Your task to perform on an android device: turn on sleep mode Image 0: 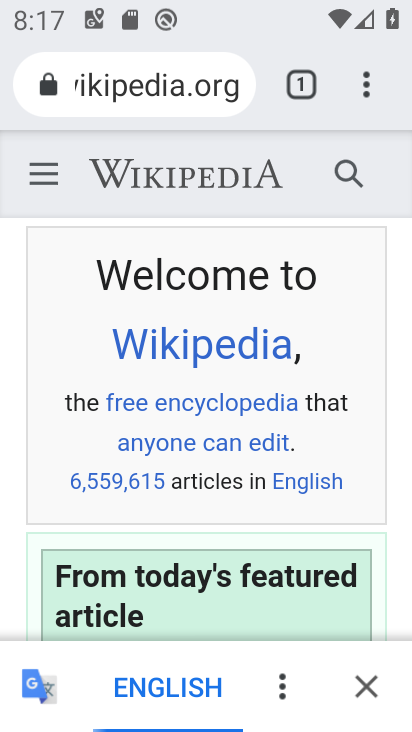
Step 0: press home button
Your task to perform on an android device: turn on sleep mode Image 1: 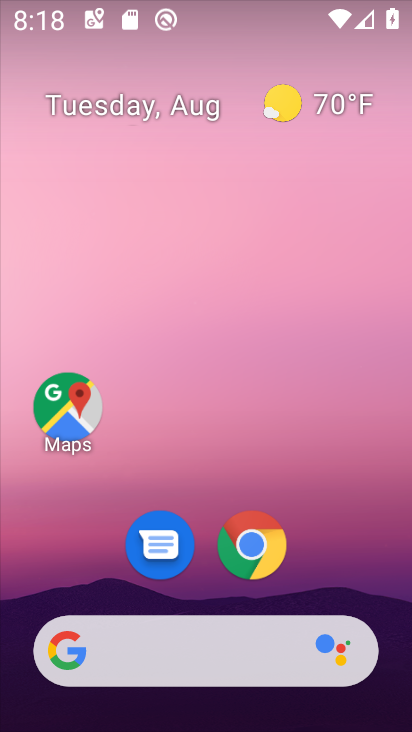
Step 1: drag from (266, 582) to (279, 9)
Your task to perform on an android device: turn on sleep mode Image 2: 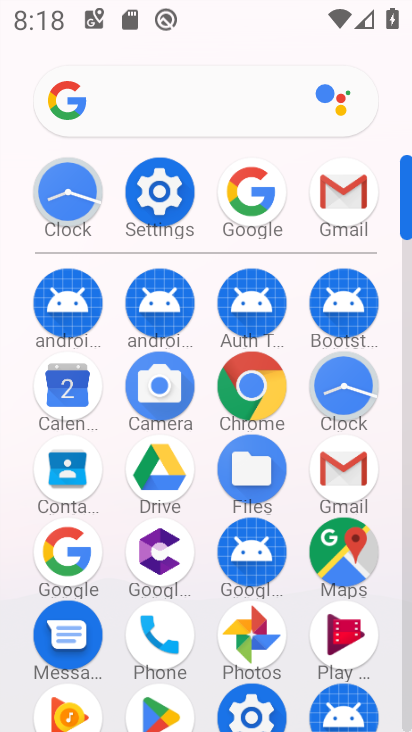
Step 2: click (180, 203)
Your task to perform on an android device: turn on sleep mode Image 3: 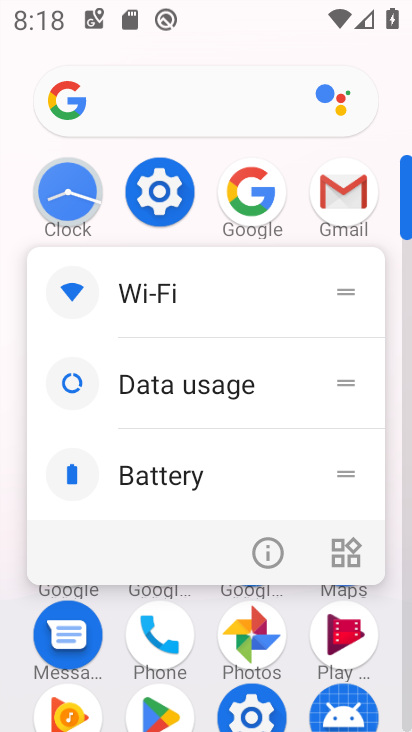
Step 3: click (153, 179)
Your task to perform on an android device: turn on sleep mode Image 4: 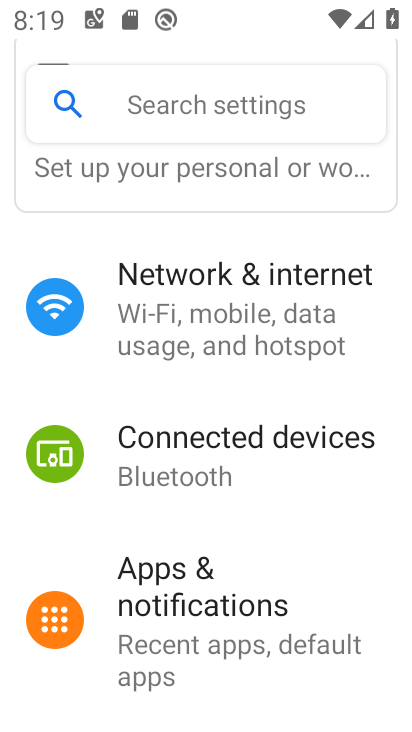
Step 4: drag from (179, 590) to (225, 183)
Your task to perform on an android device: turn on sleep mode Image 5: 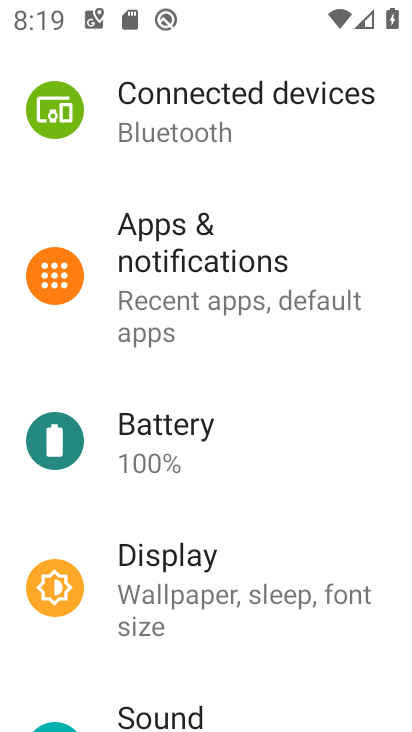
Step 5: drag from (173, 584) to (229, 238)
Your task to perform on an android device: turn on sleep mode Image 6: 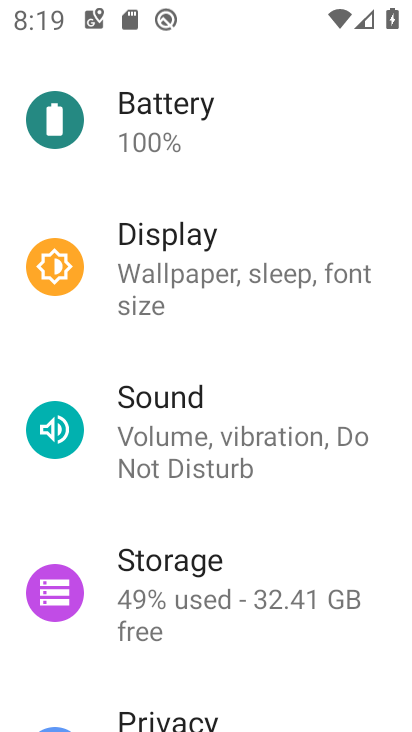
Step 6: drag from (219, 578) to (229, 264)
Your task to perform on an android device: turn on sleep mode Image 7: 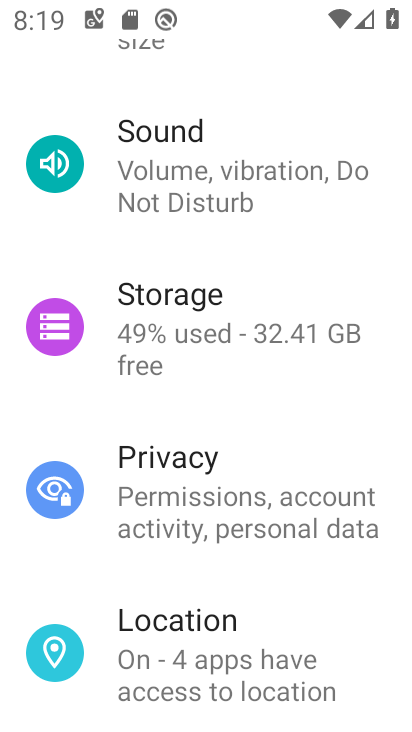
Step 7: drag from (228, 275) to (189, 683)
Your task to perform on an android device: turn on sleep mode Image 8: 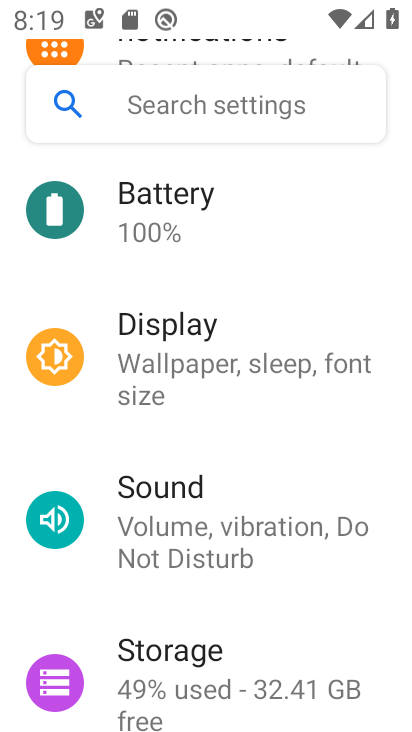
Step 8: drag from (191, 306) to (194, 633)
Your task to perform on an android device: turn on sleep mode Image 9: 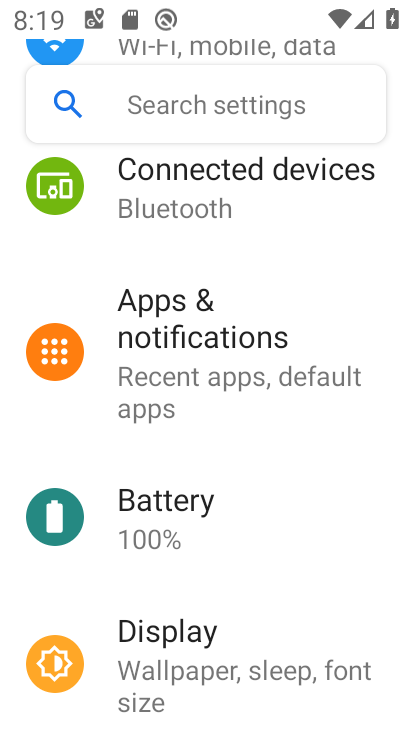
Step 9: drag from (205, 296) to (190, 651)
Your task to perform on an android device: turn on sleep mode Image 10: 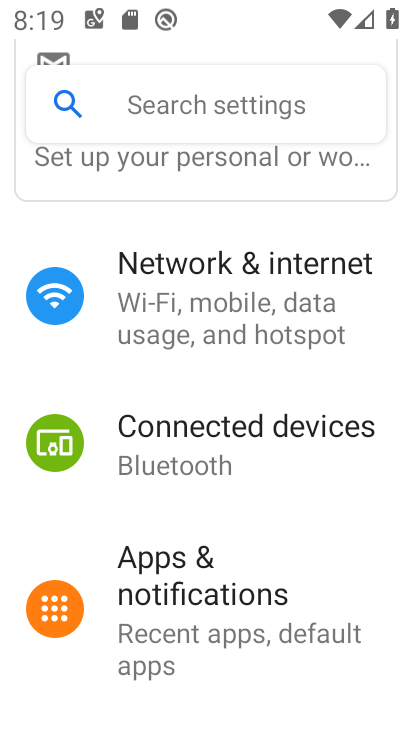
Step 10: drag from (189, 503) to (209, 283)
Your task to perform on an android device: turn on sleep mode Image 11: 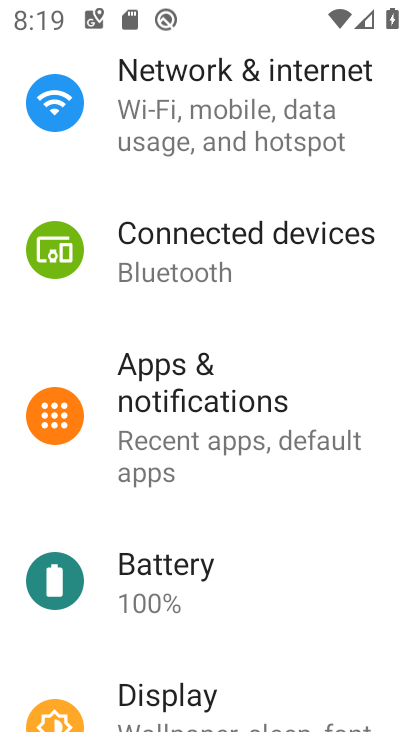
Step 11: drag from (184, 549) to (191, 287)
Your task to perform on an android device: turn on sleep mode Image 12: 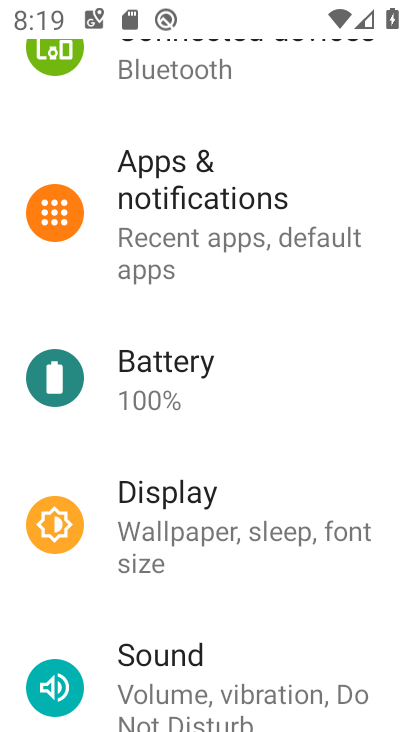
Step 12: drag from (190, 497) to (219, 181)
Your task to perform on an android device: turn on sleep mode Image 13: 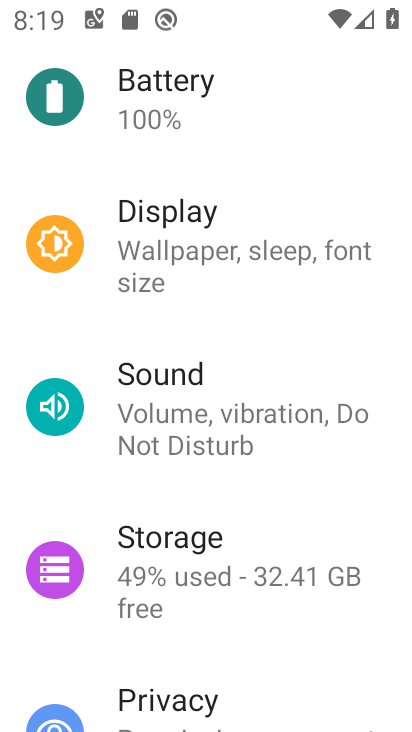
Step 13: drag from (190, 366) to (197, 654)
Your task to perform on an android device: turn on sleep mode Image 14: 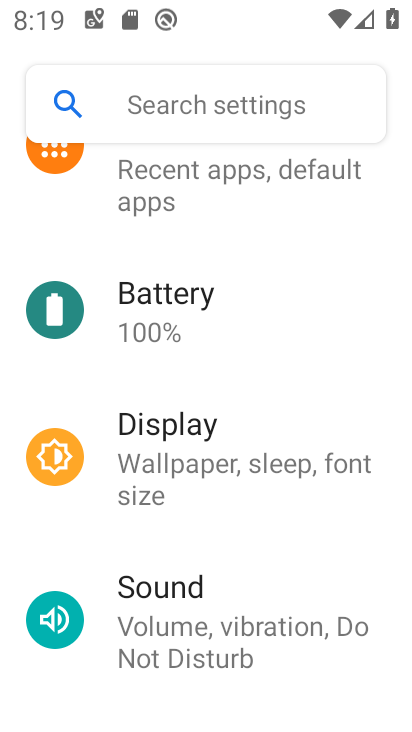
Step 14: drag from (237, 384) to (183, 678)
Your task to perform on an android device: turn on sleep mode Image 15: 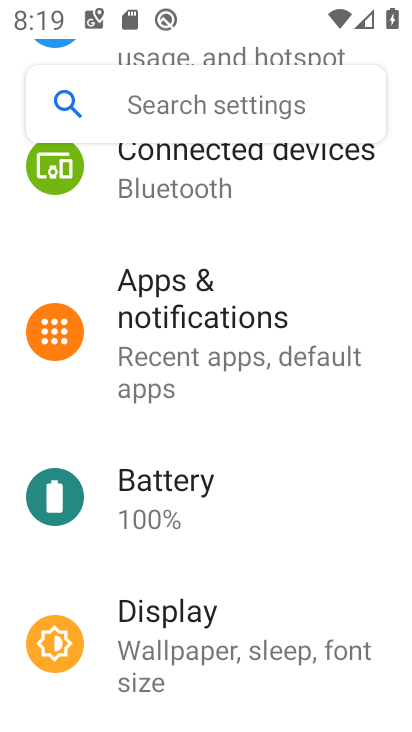
Step 15: click (156, 659)
Your task to perform on an android device: turn on sleep mode Image 16: 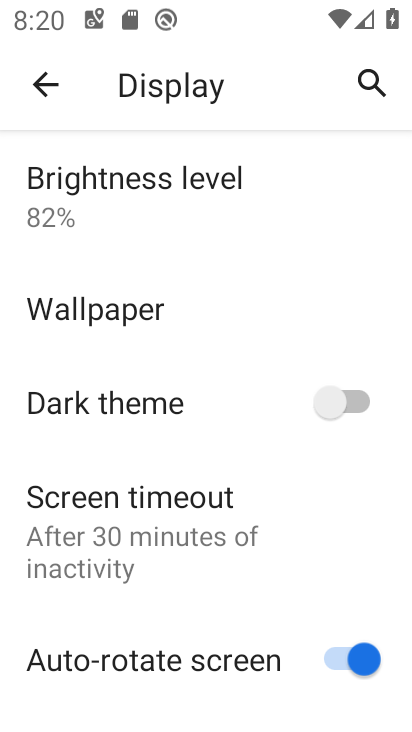
Step 16: task complete